Your task to perform on an android device: turn on the 24-hour format for clock Image 0: 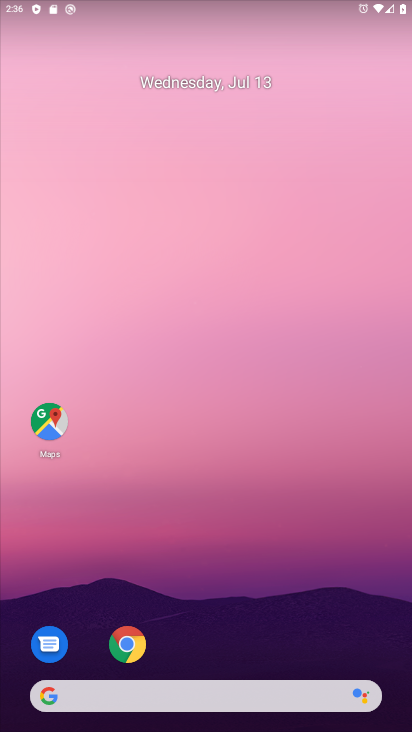
Step 0: drag from (216, 708) to (293, 16)
Your task to perform on an android device: turn on the 24-hour format for clock Image 1: 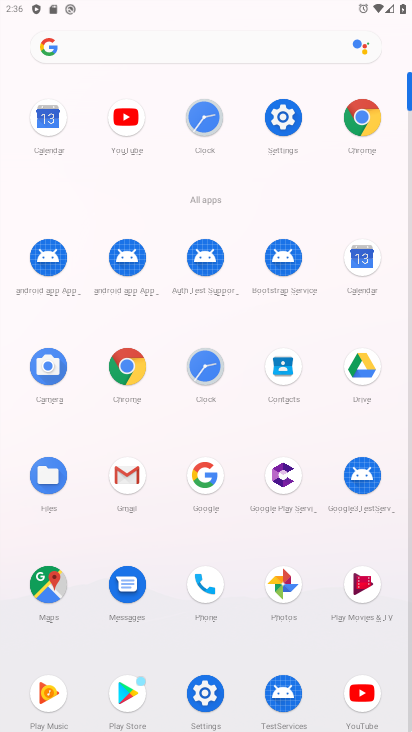
Step 1: click (190, 129)
Your task to perform on an android device: turn on the 24-hour format for clock Image 2: 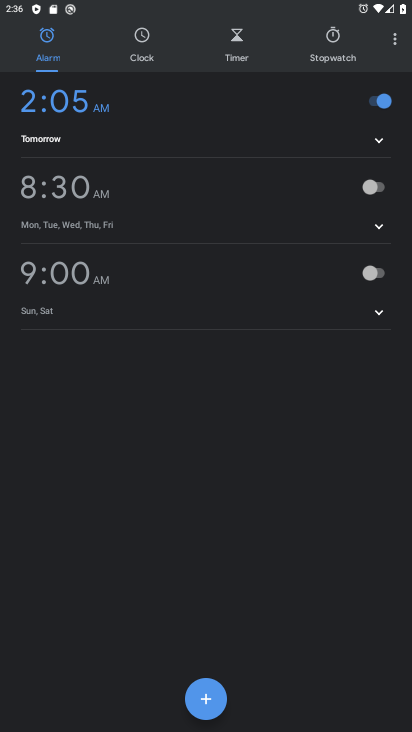
Step 2: click (395, 37)
Your task to perform on an android device: turn on the 24-hour format for clock Image 3: 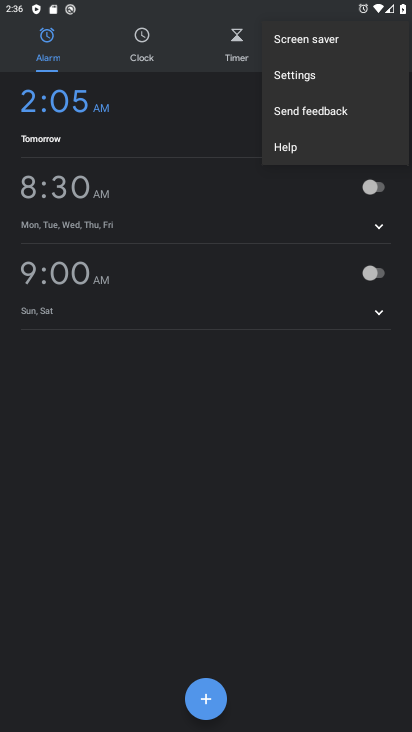
Step 3: click (329, 75)
Your task to perform on an android device: turn on the 24-hour format for clock Image 4: 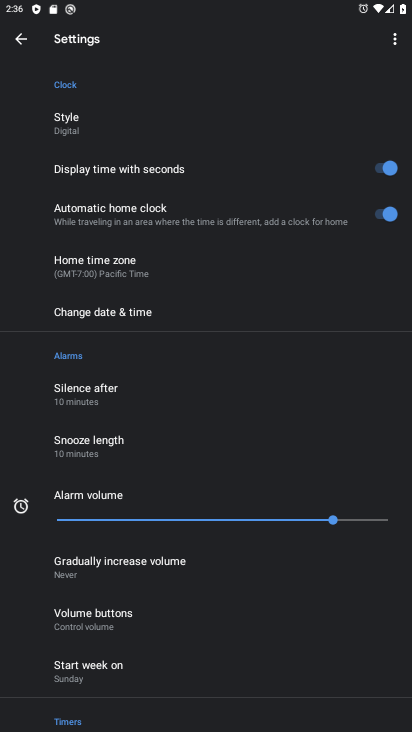
Step 4: click (126, 307)
Your task to perform on an android device: turn on the 24-hour format for clock Image 5: 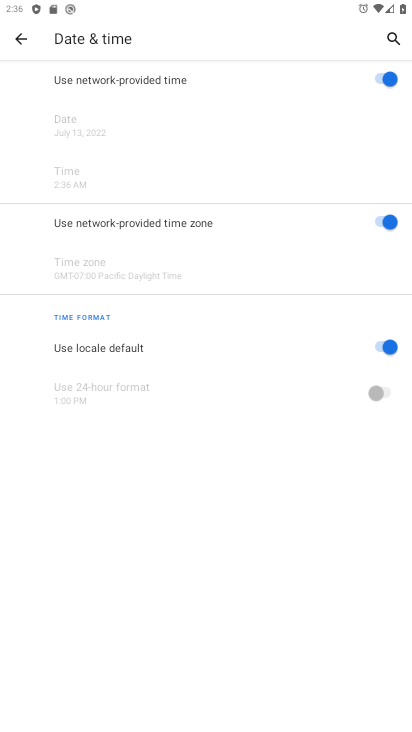
Step 5: click (391, 350)
Your task to perform on an android device: turn on the 24-hour format for clock Image 6: 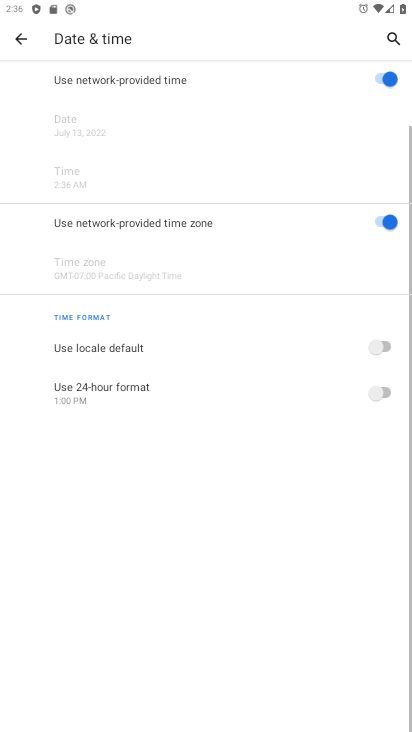
Step 6: click (388, 392)
Your task to perform on an android device: turn on the 24-hour format for clock Image 7: 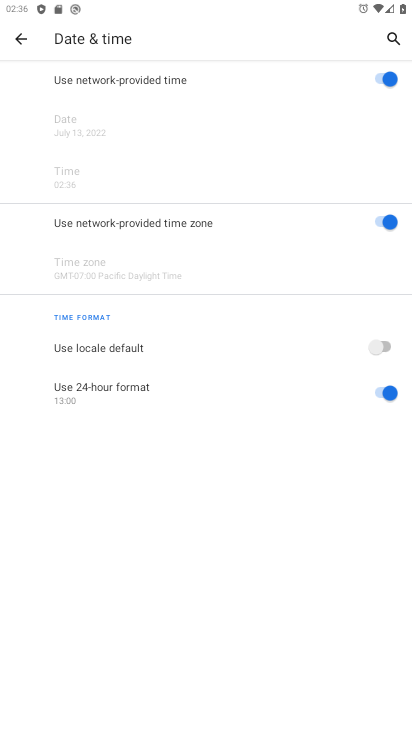
Step 7: task complete